Your task to perform on an android device: See recent photos Image 0: 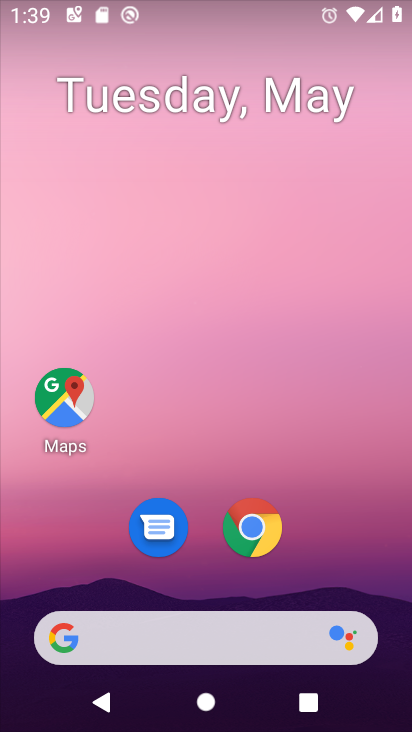
Step 0: drag from (236, 702) to (221, 59)
Your task to perform on an android device: See recent photos Image 1: 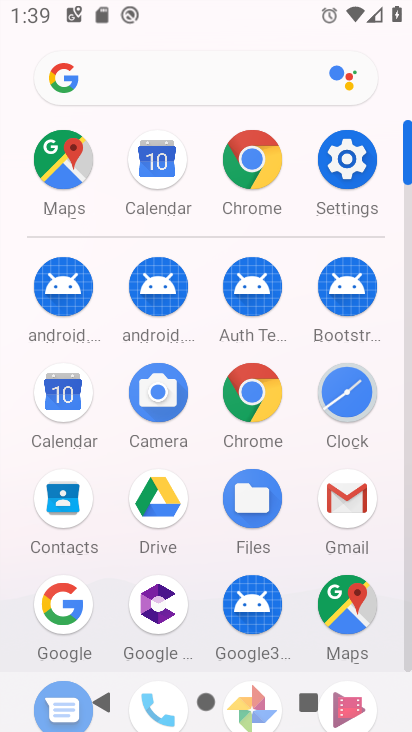
Step 1: drag from (261, 596) to (232, 17)
Your task to perform on an android device: See recent photos Image 2: 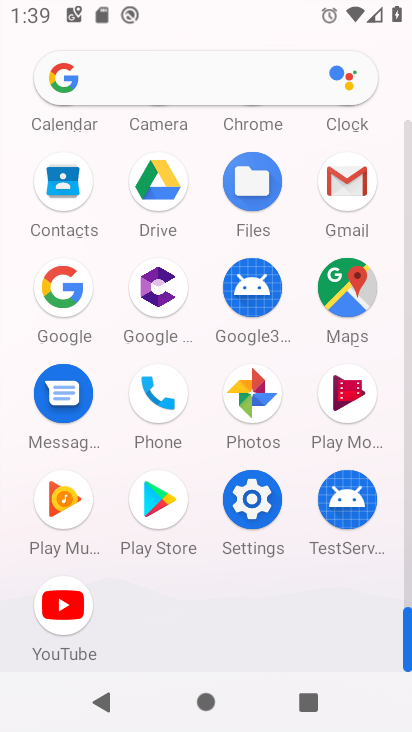
Step 2: click (267, 396)
Your task to perform on an android device: See recent photos Image 3: 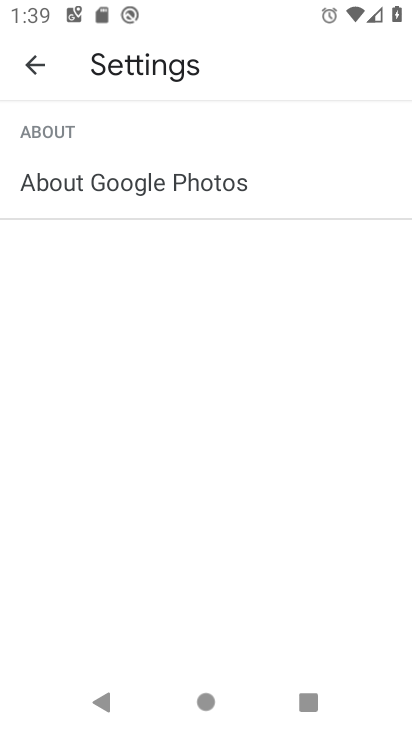
Step 3: press home button
Your task to perform on an android device: See recent photos Image 4: 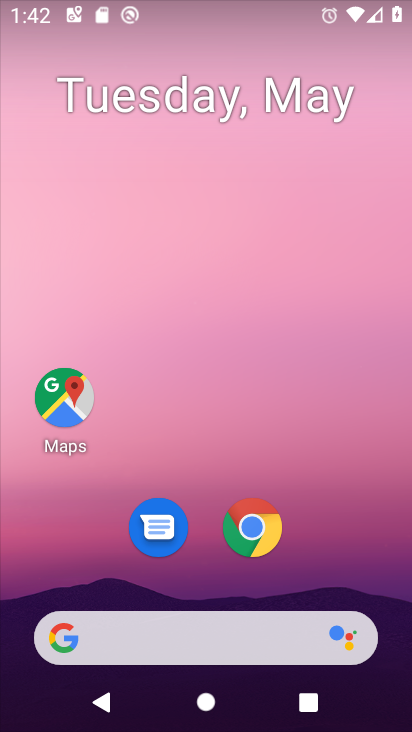
Step 4: drag from (276, 660) to (348, 30)
Your task to perform on an android device: See recent photos Image 5: 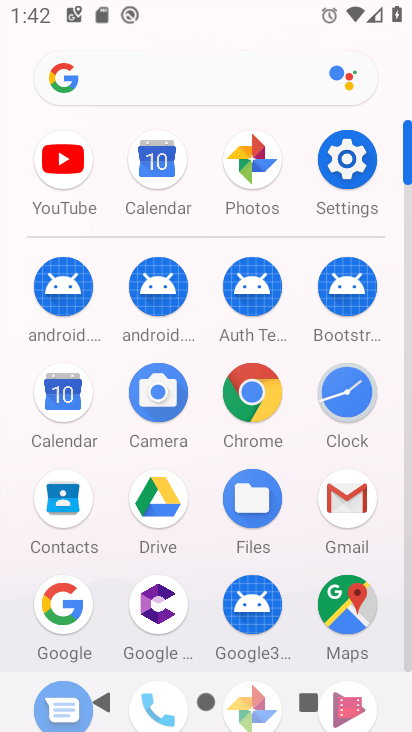
Step 5: click (257, 157)
Your task to perform on an android device: See recent photos Image 6: 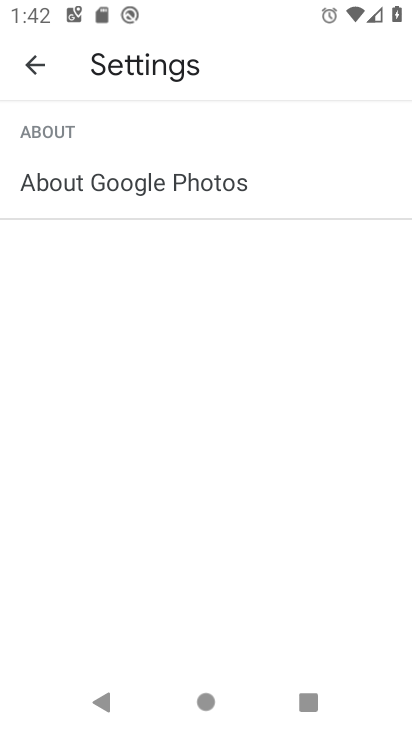
Step 6: click (25, 72)
Your task to perform on an android device: See recent photos Image 7: 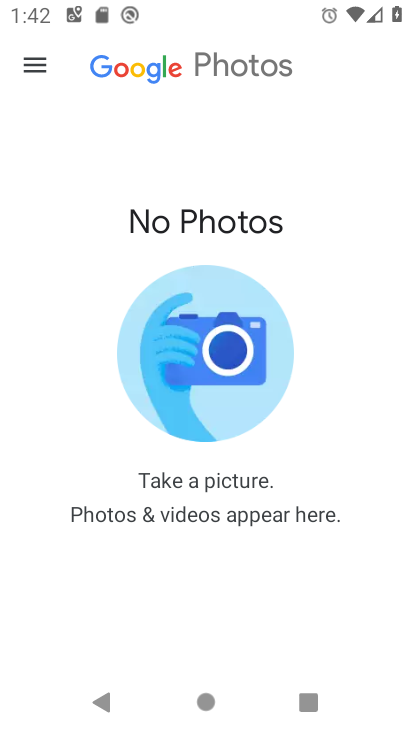
Step 7: task complete